Your task to perform on an android device: Show me popular videos on Youtube Image 0: 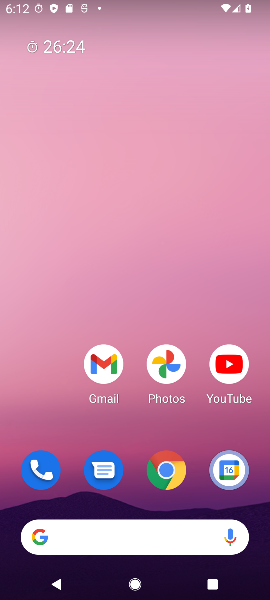
Step 0: drag from (195, 492) to (218, 58)
Your task to perform on an android device: Show me popular videos on Youtube Image 1: 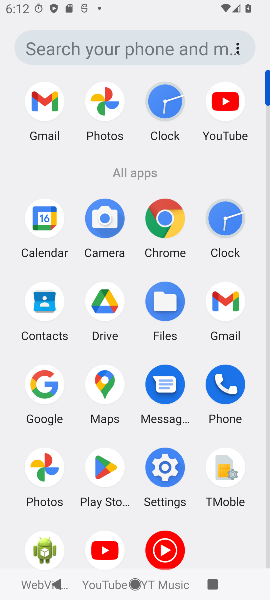
Step 1: click (105, 548)
Your task to perform on an android device: Show me popular videos on Youtube Image 2: 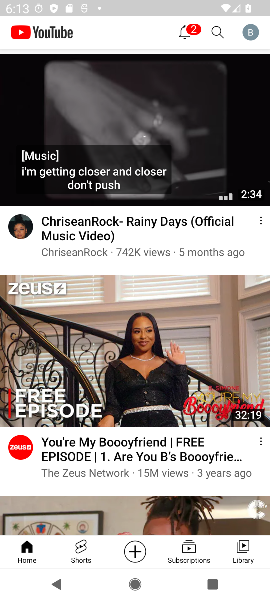
Step 2: click (250, 36)
Your task to perform on an android device: Show me popular videos on Youtube Image 3: 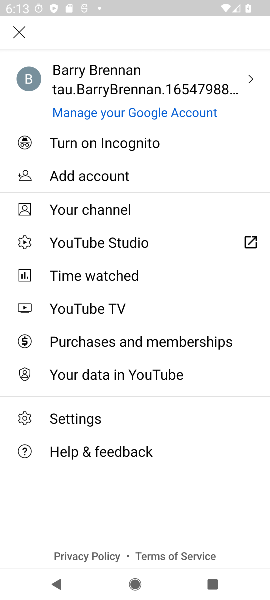
Step 3: click (7, 33)
Your task to perform on an android device: Show me popular videos on Youtube Image 4: 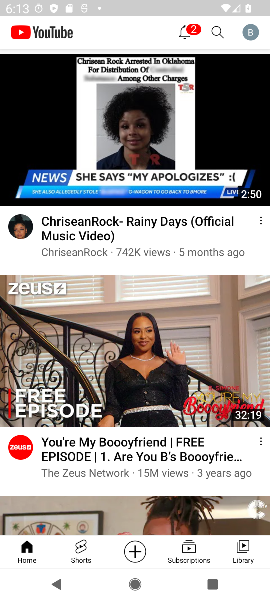
Step 4: click (219, 24)
Your task to perform on an android device: Show me popular videos on Youtube Image 5: 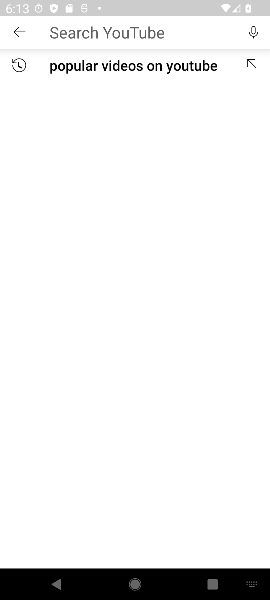
Step 5: click (124, 27)
Your task to perform on an android device: Show me popular videos on Youtube Image 6: 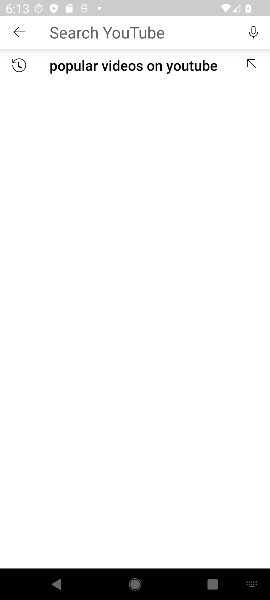
Step 6: click (110, 72)
Your task to perform on an android device: Show me popular videos on Youtube Image 7: 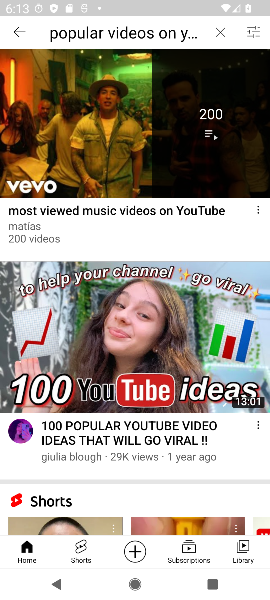
Step 7: task complete